Your task to perform on an android device: Open Youtube and go to the subscriptions tab Image 0: 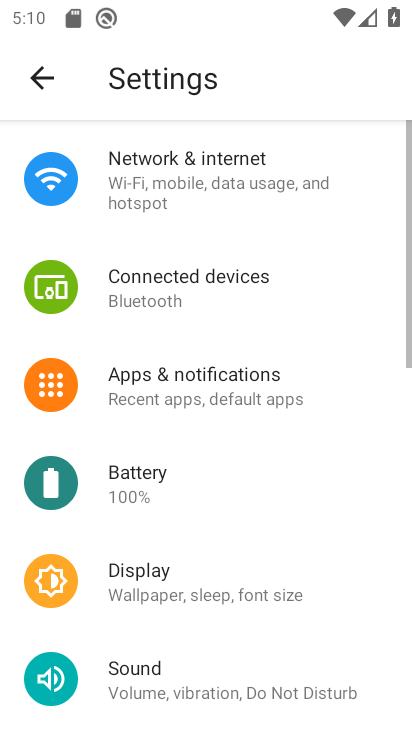
Step 0: press home button
Your task to perform on an android device: Open Youtube and go to the subscriptions tab Image 1: 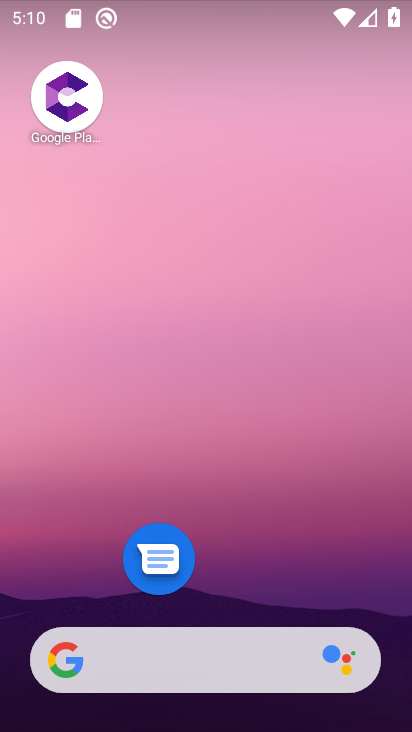
Step 1: drag from (238, 659) to (283, 400)
Your task to perform on an android device: Open Youtube and go to the subscriptions tab Image 2: 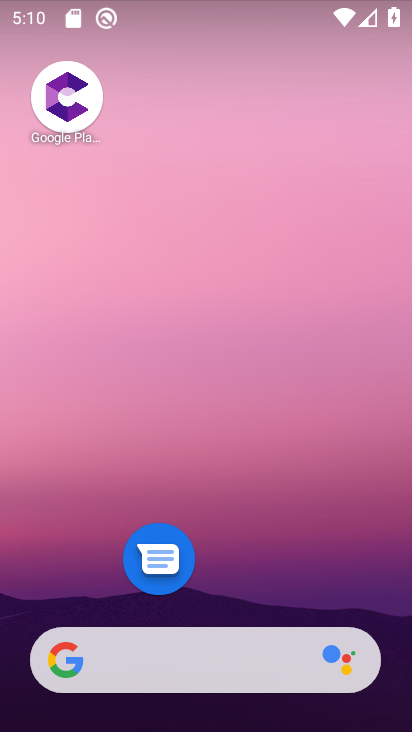
Step 2: drag from (263, 656) to (188, 98)
Your task to perform on an android device: Open Youtube and go to the subscriptions tab Image 3: 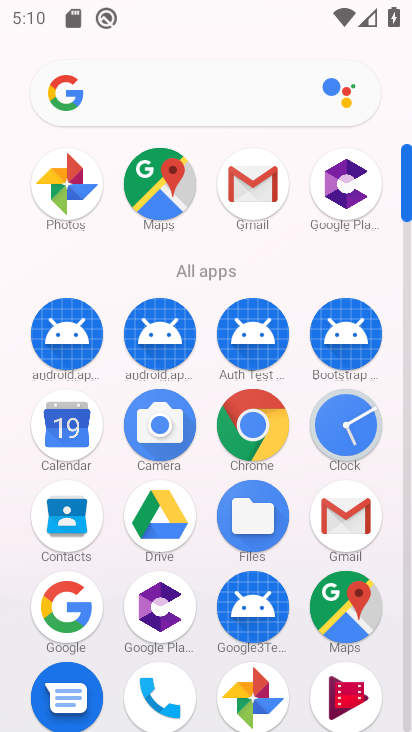
Step 3: drag from (221, 637) to (201, 233)
Your task to perform on an android device: Open Youtube and go to the subscriptions tab Image 4: 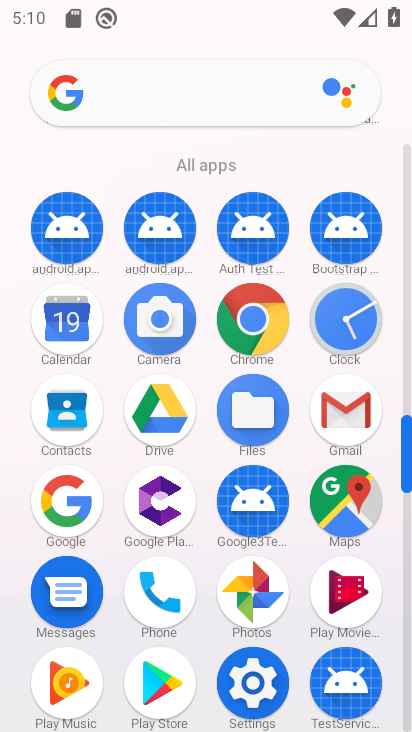
Step 4: drag from (243, 641) to (227, 331)
Your task to perform on an android device: Open Youtube and go to the subscriptions tab Image 5: 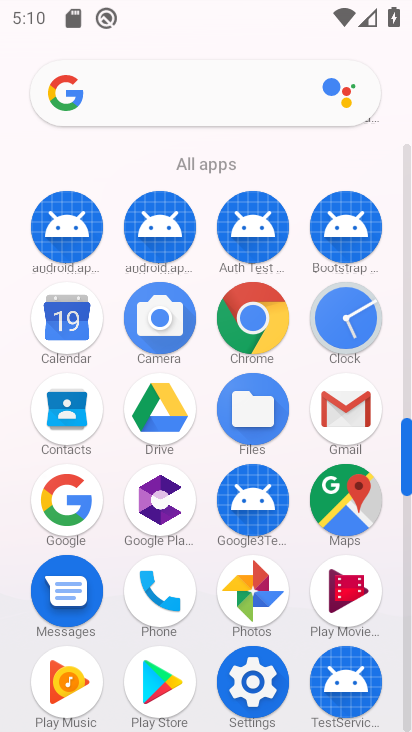
Step 5: drag from (286, 679) to (261, 371)
Your task to perform on an android device: Open Youtube and go to the subscriptions tab Image 6: 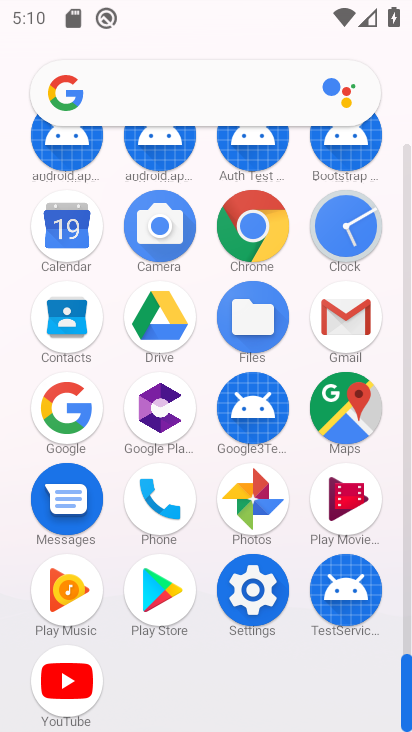
Step 6: click (76, 681)
Your task to perform on an android device: Open Youtube and go to the subscriptions tab Image 7: 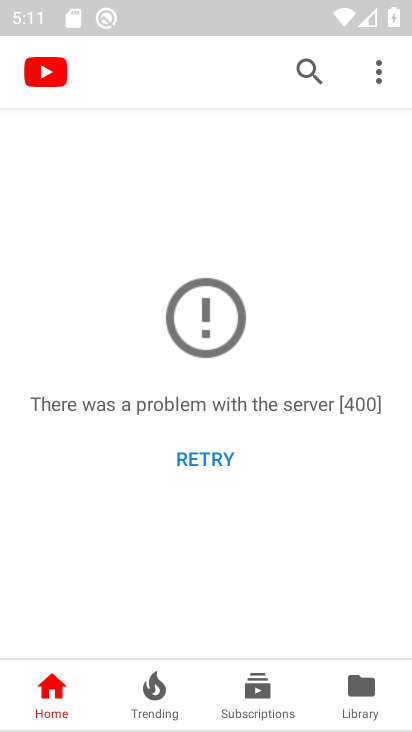
Step 7: click (264, 696)
Your task to perform on an android device: Open Youtube and go to the subscriptions tab Image 8: 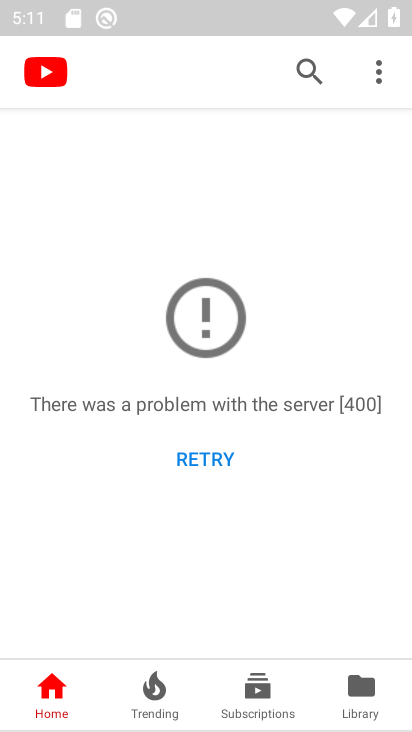
Step 8: click (264, 687)
Your task to perform on an android device: Open Youtube and go to the subscriptions tab Image 9: 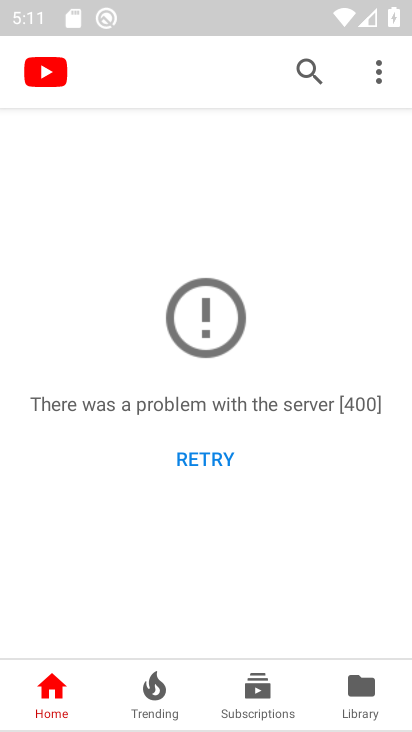
Step 9: click (251, 685)
Your task to perform on an android device: Open Youtube and go to the subscriptions tab Image 10: 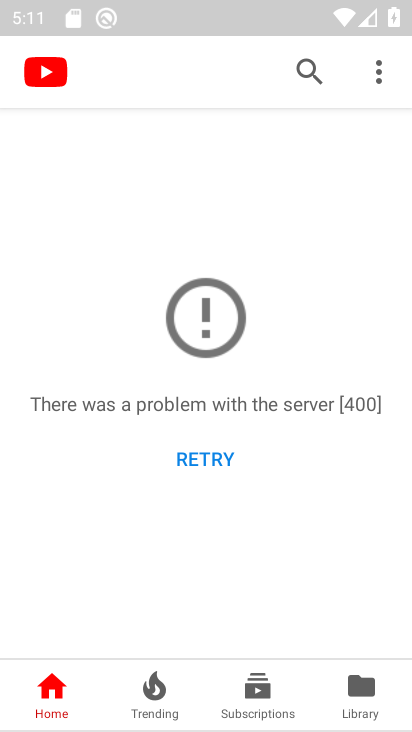
Step 10: click (265, 673)
Your task to perform on an android device: Open Youtube and go to the subscriptions tab Image 11: 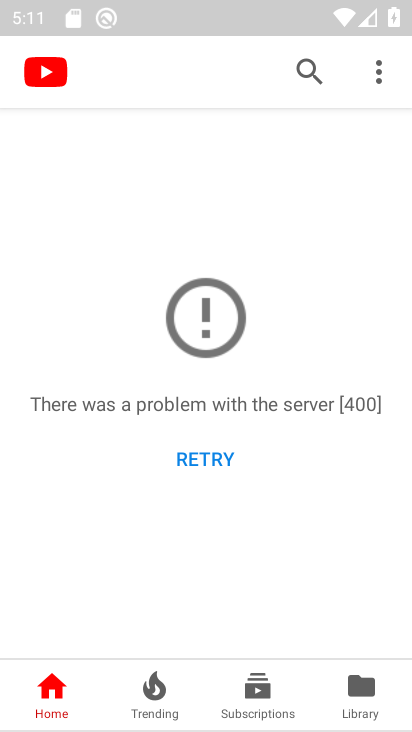
Step 11: click (263, 692)
Your task to perform on an android device: Open Youtube and go to the subscriptions tab Image 12: 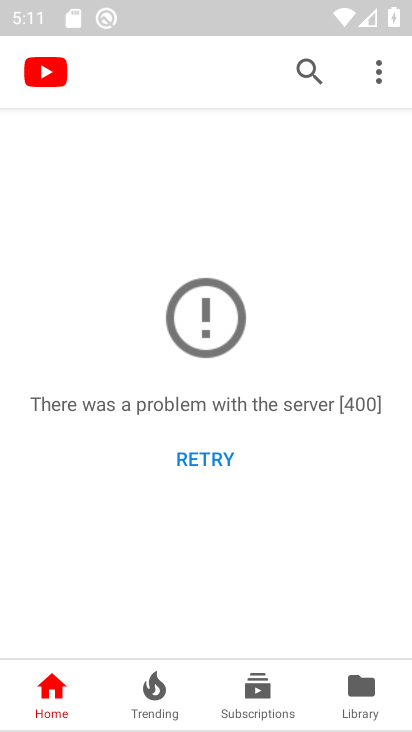
Step 12: click (263, 692)
Your task to perform on an android device: Open Youtube and go to the subscriptions tab Image 13: 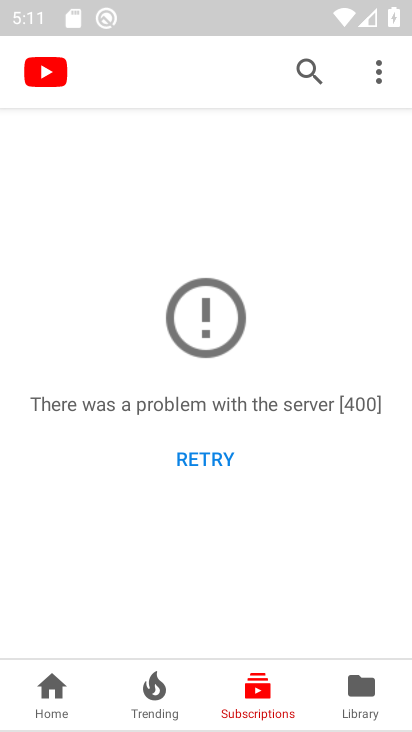
Step 13: task complete